Your task to perform on an android device: clear history in the chrome app Image 0: 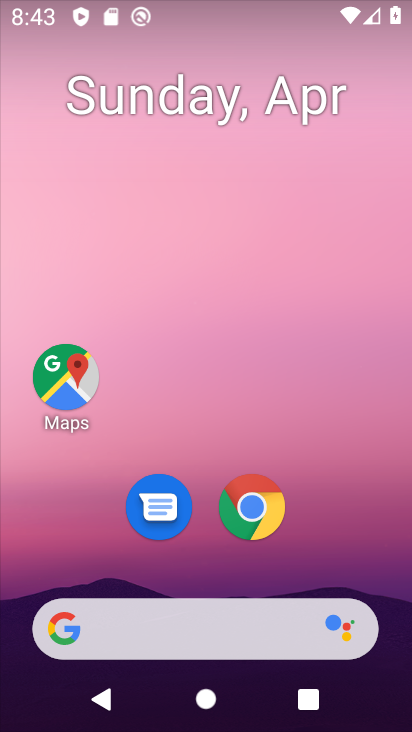
Step 0: click (251, 526)
Your task to perform on an android device: clear history in the chrome app Image 1: 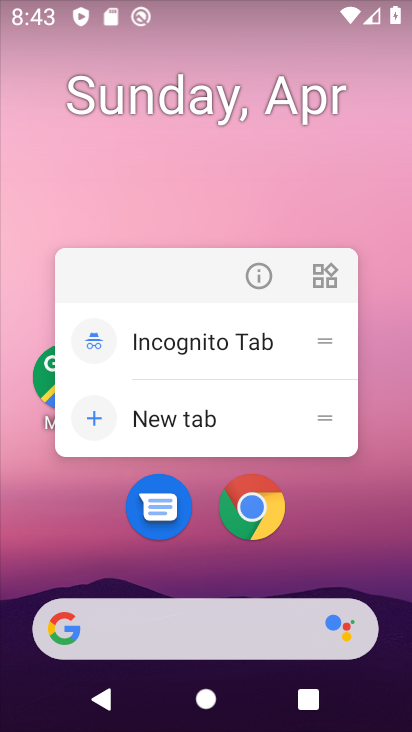
Step 1: click (250, 525)
Your task to perform on an android device: clear history in the chrome app Image 2: 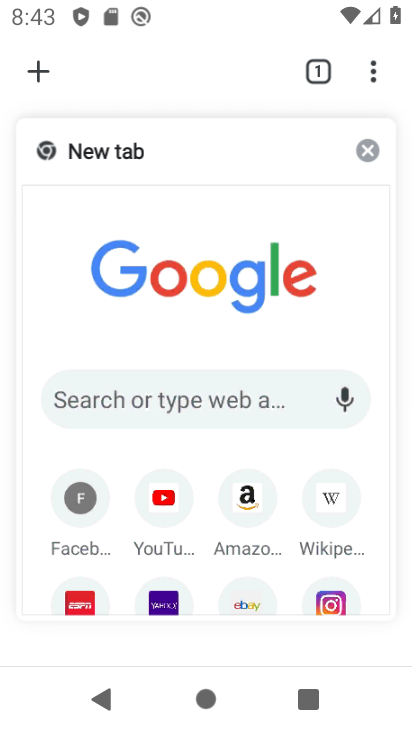
Step 2: click (242, 335)
Your task to perform on an android device: clear history in the chrome app Image 3: 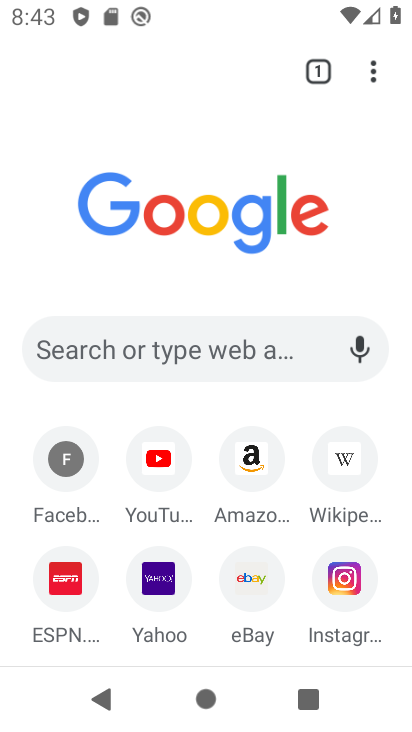
Step 3: click (377, 75)
Your task to perform on an android device: clear history in the chrome app Image 4: 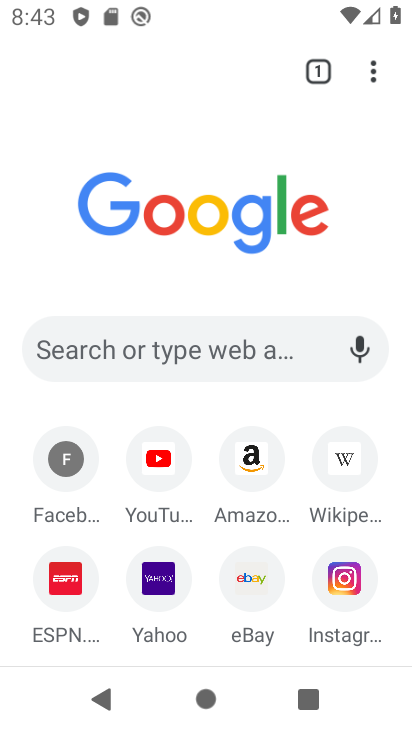
Step 4: click (375, 82)
Your task to perform on an android device: clear history in the chrome app Image 5: 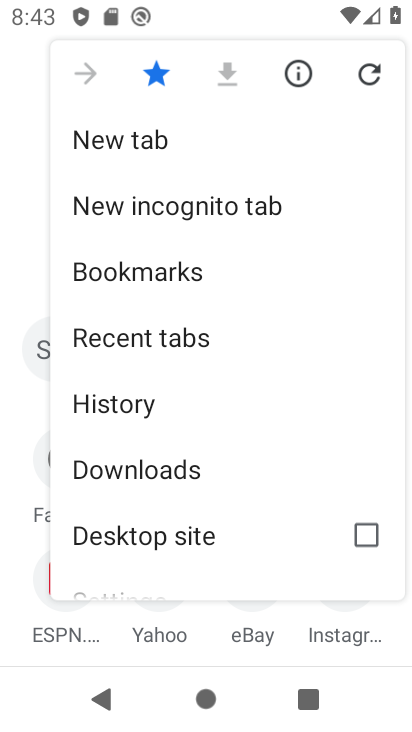
Step 5: click (117, 408)
Your task to perform on an android device: clear history in the chrome app Image 6: 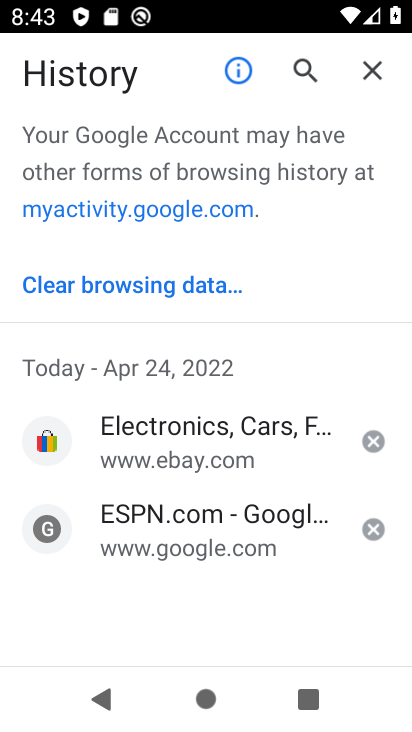
Step 6: click (141, 282)
Your task to perform on an android device: clear history in the chrome app Image 7: 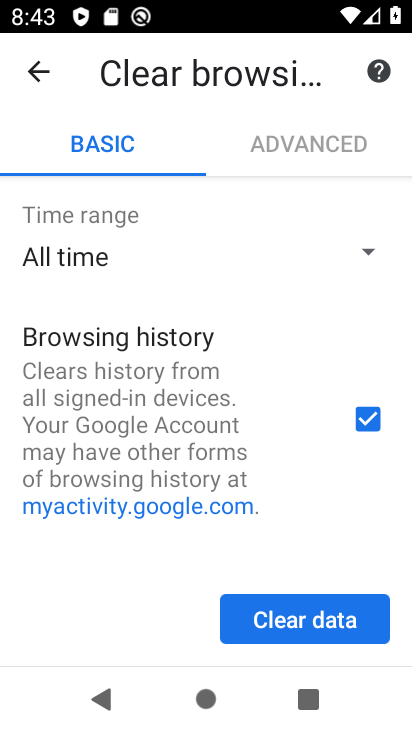
Step 7: click (307, 628)
Your task to perform on an android device: clear history in the chrome app Image 8: 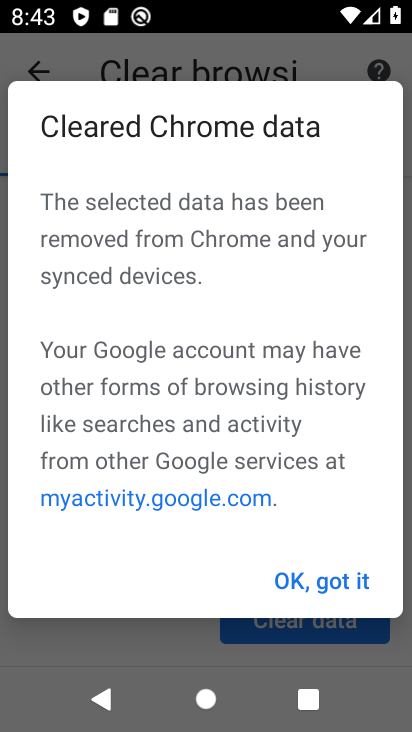
Step 8: click (298, 577)
Your task to perform on an android device: clear history in the chrome app Image 9: 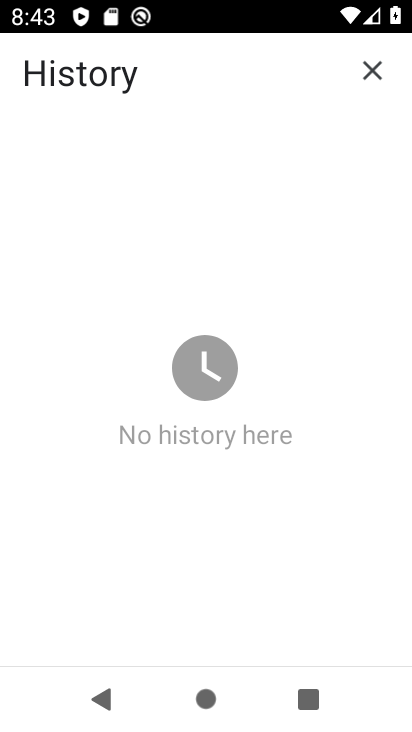
Step 9: task complete